Your task to perform on an android device: toggle improve location accuracy Image 0: 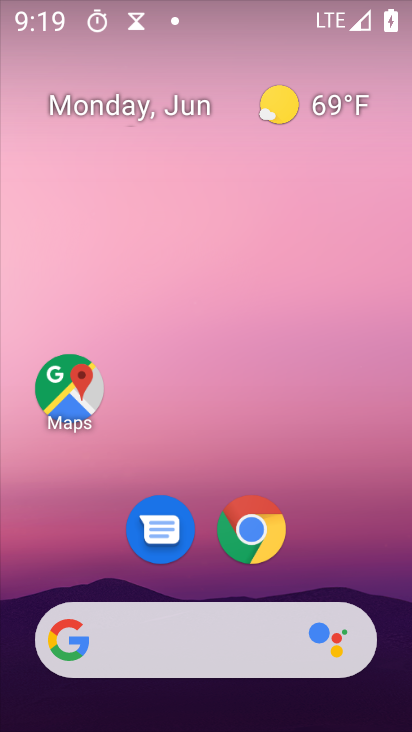
Step 0: drag from (302, 424) to (236, 10)
Your task to perform on an android device: toggle improve location accuracy Image 1: 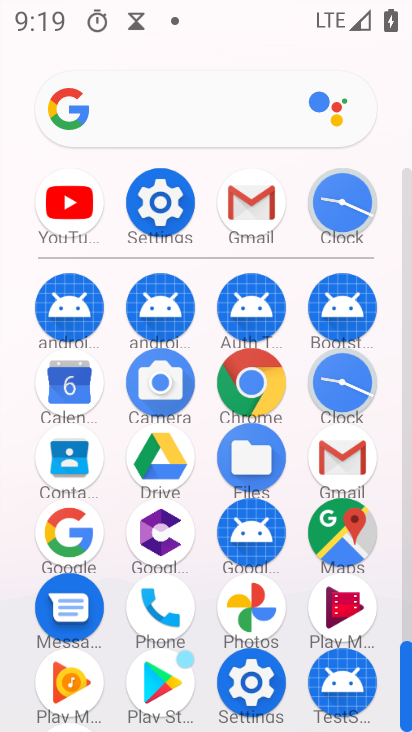
Step 1: click (149, 206)
Your task to perform on an android device: toggle improve location accuracy Image 2: 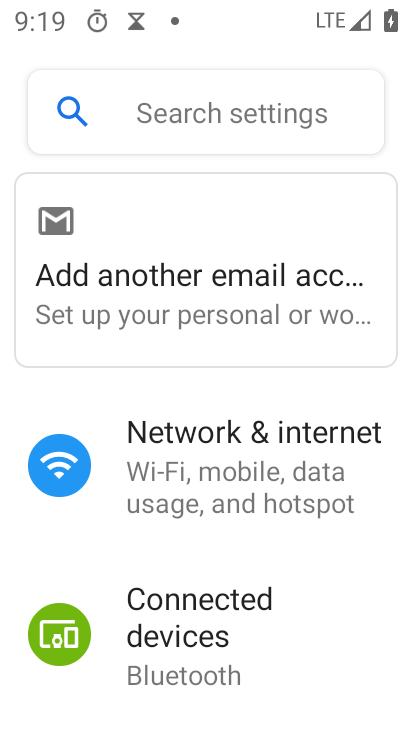
Step 2: drag from (338, 621) to (323, 188)
Your task to perform on an android device: toggle improve location accuracy Image 3: 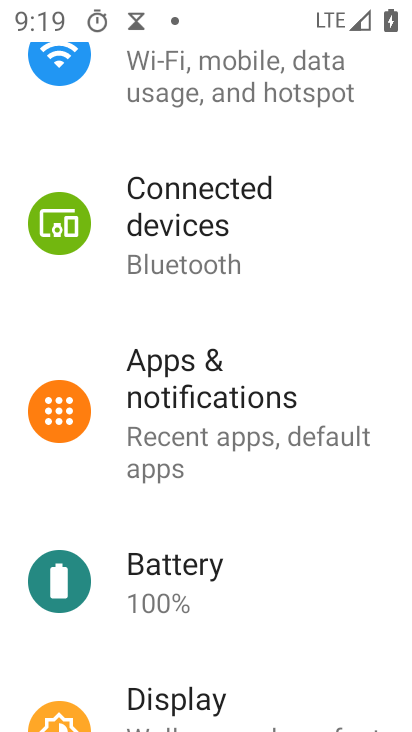
Step 3: drag from (337, 587) to (301, 206)
Your task to perform on an android device: toggle improve location accuracy Image 4: 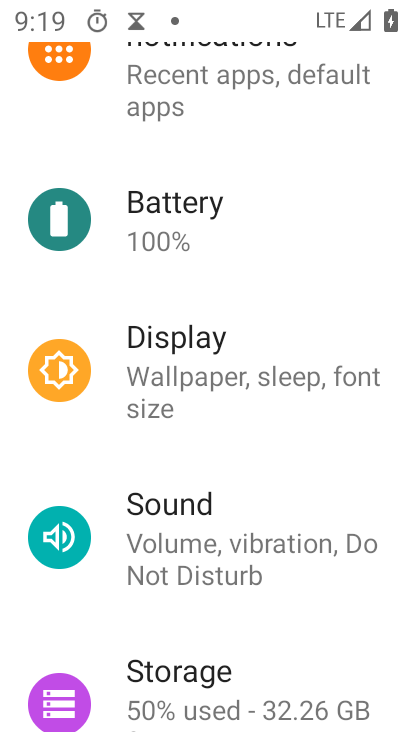
Step 4: drag from (262, 599) to (262, 165)
Your task to perform on an android device: toggle improve location accuracy Image 5: 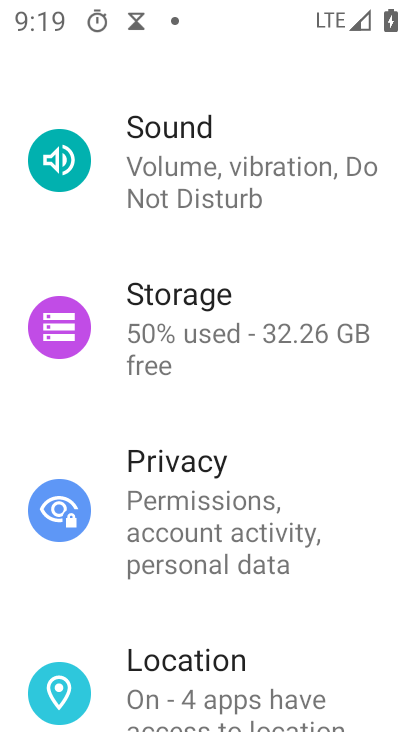
Step 5: click (263, 683)
Your task to perform on an android device: toggle improve location accuracy Image 6: 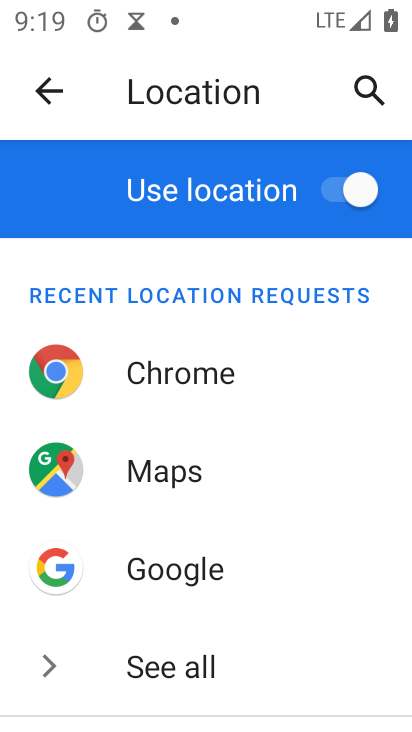
Step 6: drag from (380, 695) to (339, 188)
Your task to perform on an android device: toggle improve location accuracy Image 7: 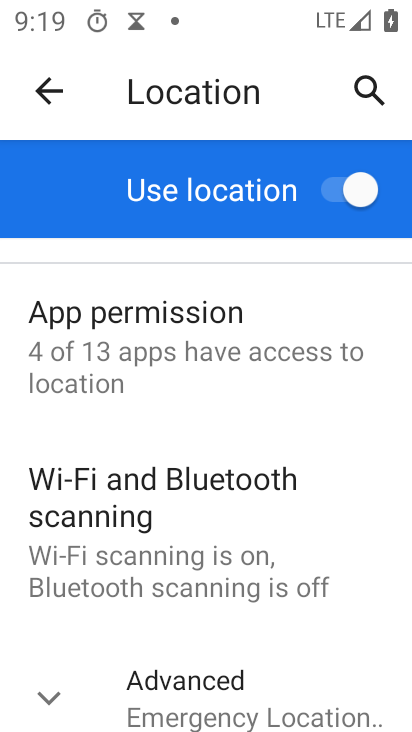
Step 7: click (306, 697)
Your task to perform on an android device: toggle improve location accuracy Image 8: 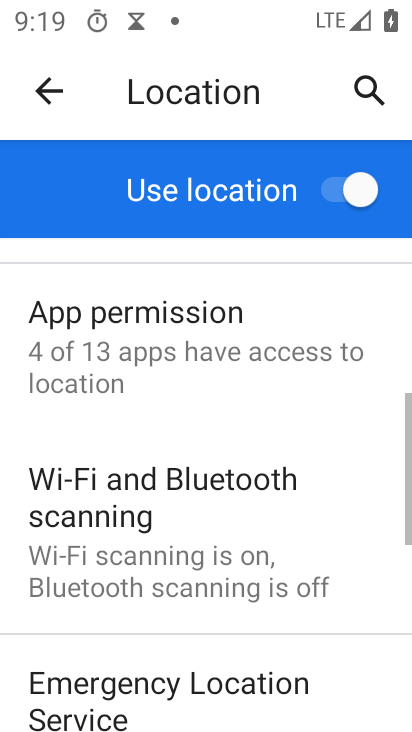
Step 8: drag from (292, 689) to (261, 232)
Your task to perform on an android device: toggle improve location accuracy Image 9: 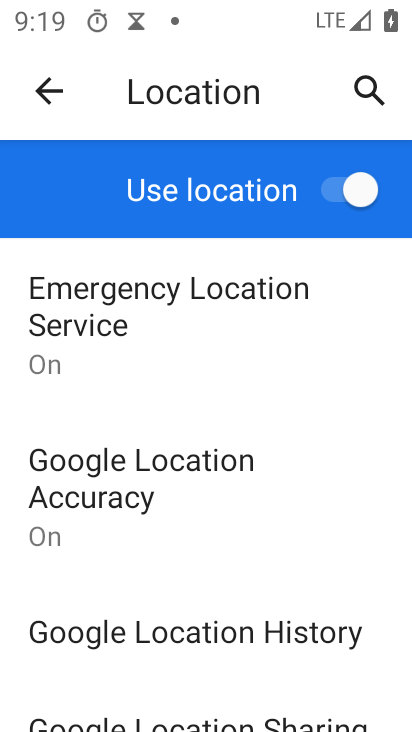
Step 9: click (252, 638)
Your task to perform on an android device: toggle improve location accuracy Image 10: 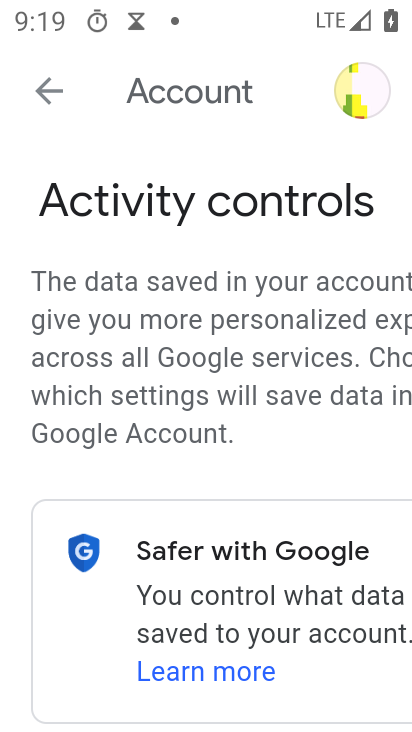
Step 10: drag from (210, 576) to (191, 144)
Your task to perform on an android device: toggle improve location accuracy Image 11: 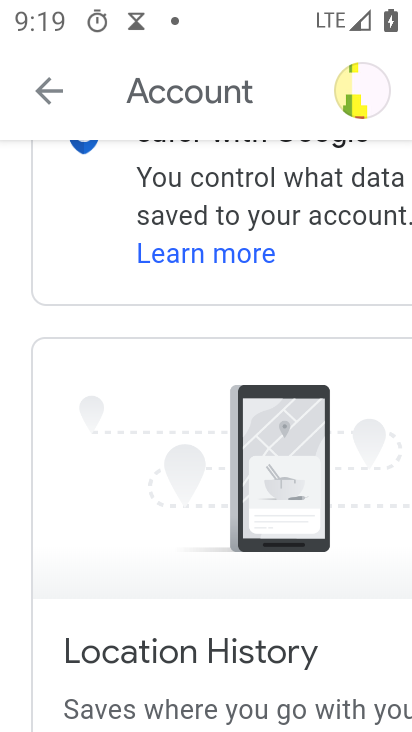
Step 11: drag from (297, 631) to (283, 177)
Your task to perform on an android device: toggle improve location accuracy Image 12: 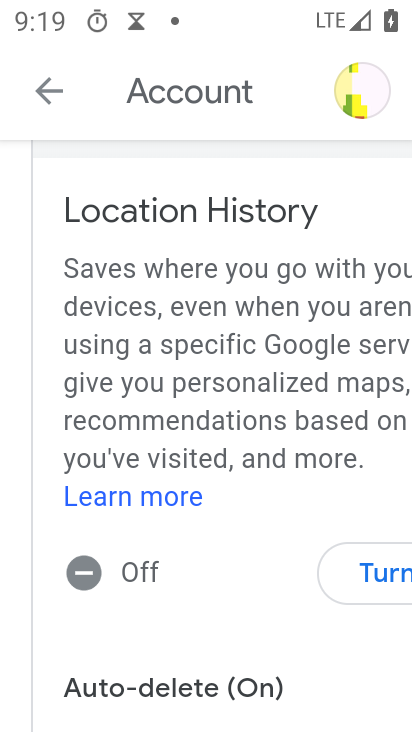
Step 12: click (43, 88)
Your task to perform on an android device: toggle improve location accuracy Image 13: 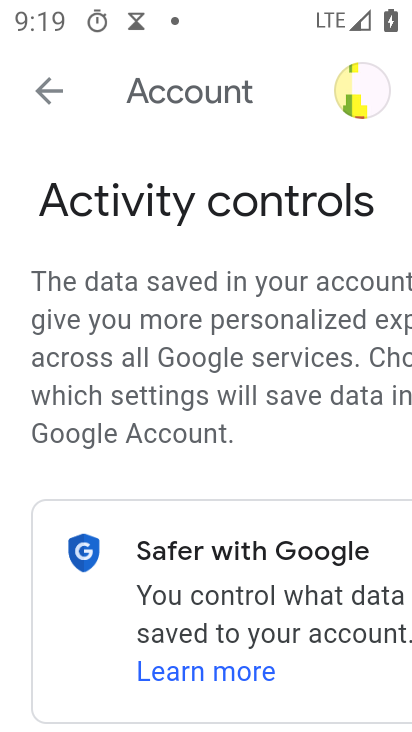
Step 13: click (44, 93)
Your task to perform on an android device: toggle improve location accuracy Image 14: 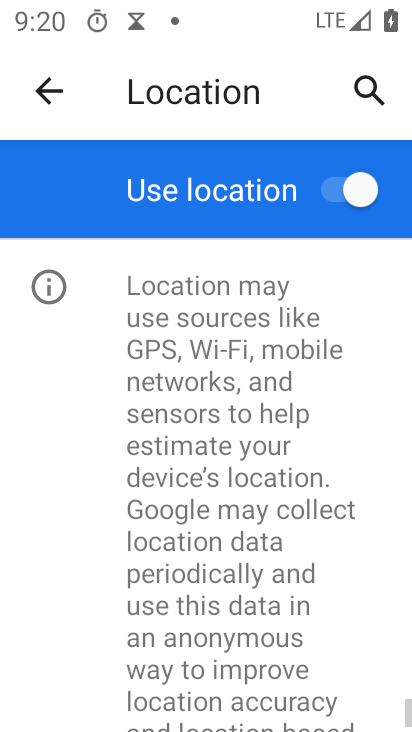
Step 14: task complete